Your task to perform on an android device: Open Chrome and go to settings Image 0: 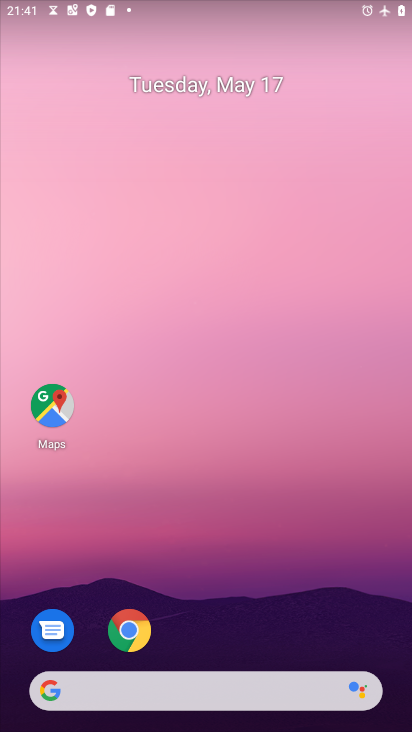
Step 0: click (134, 626)
Your task to perform on an android device: Open Chrome and go to settings Image 1: 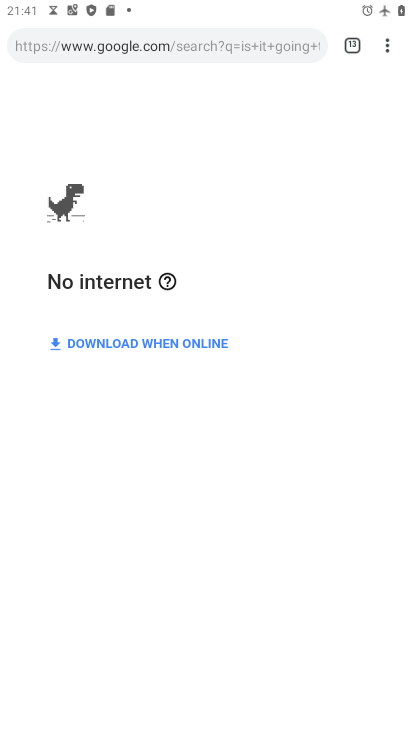
Step 1: click (387, 44)
Your task to perform on an android device: Open Chrome and go to settings Image 2: 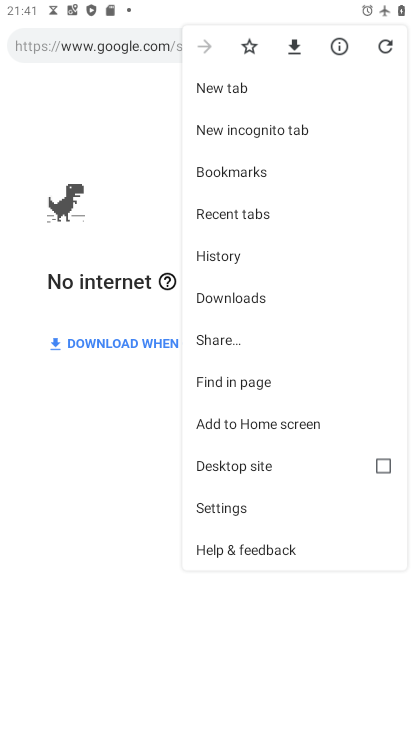
Step 2: click (222, 513)
Your task to perform on an android device: Open Chrome and go to settings Image 3: 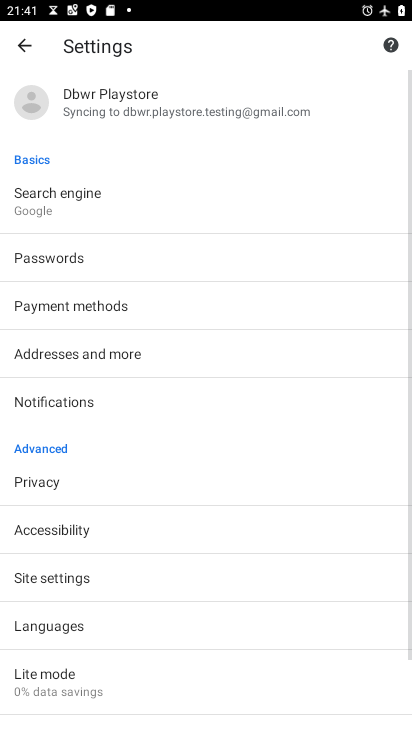
Step 3: task complete